Your task to perform on an android device: turn pop-ups off in chrome Image 0: 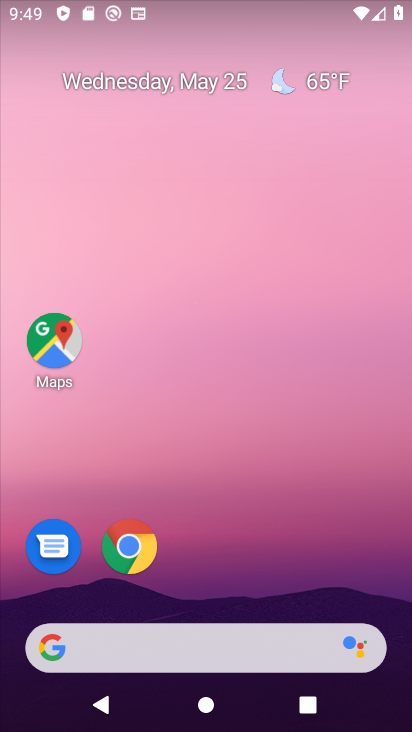
Step 0: drag from (255, 478) to (234, 48)
Your task to perform on an android device: turn pop-ups off in chrome Image 1: 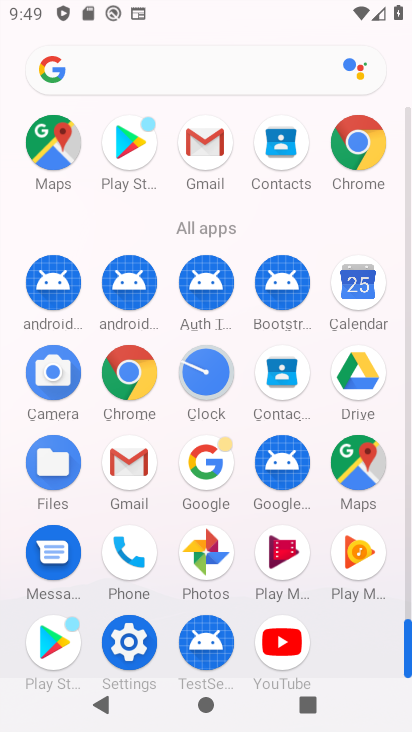
Step 1: drag from (13, 573) to (4, 243)
Your task to perform on an android device: turn pop-ups off in chrome Image 2: 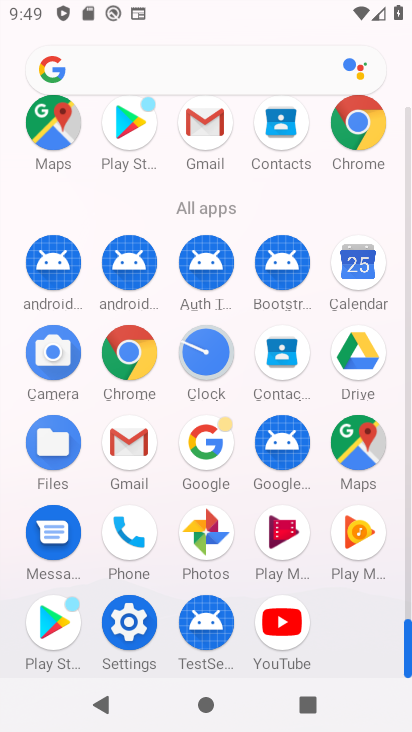
Step 2: click (131, 346)
Your task to perform on an android device: turn pop-ups off in chrome Image 3: 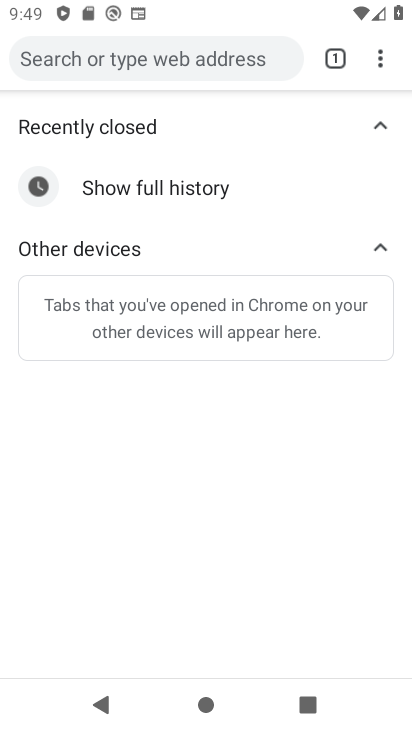
Step 3: drag from (376, 62) to (206, 497)
Your task to perform on an android device: turn pop-ups off in chrome Image 4: 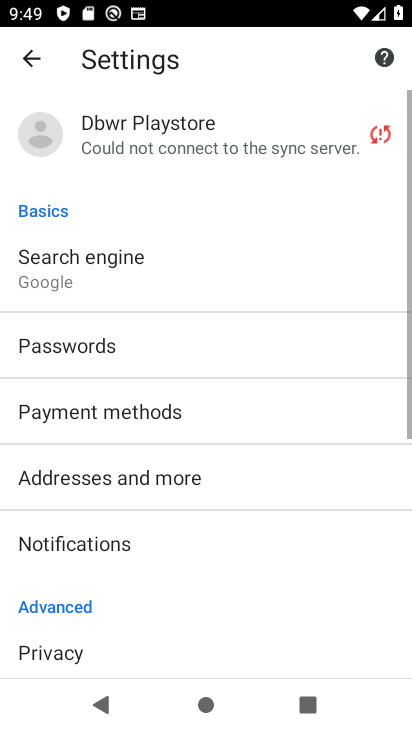
Step 4: drag from (279, 577) to (290, 140)
Your task to perform on an android device: turn pop-ups off in chrome Image 5: 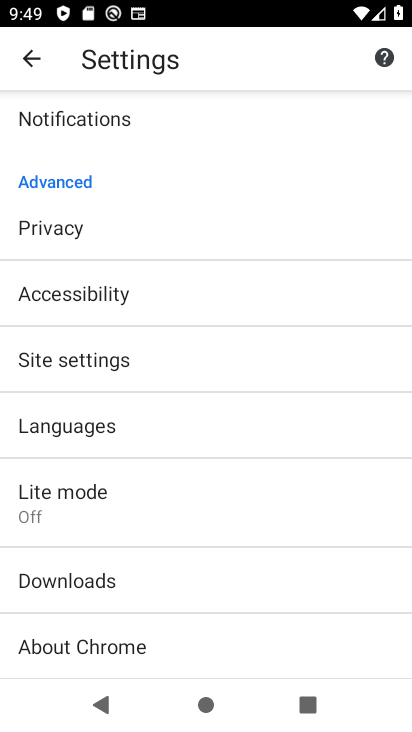
Step 5: drag from (229, 568) to (292, 163)
Your task to perform on an android device: turn pop-ups off in chrome Image 6: 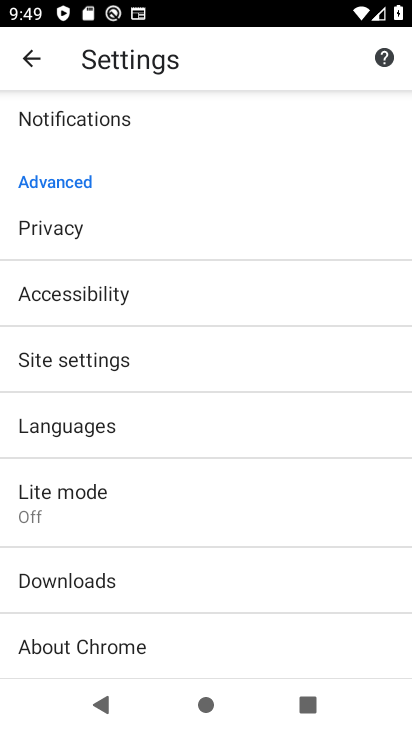
Step 6: click (116, 353)
Your task to perform on an android device: turn pop-ups off in chrome Image 7: 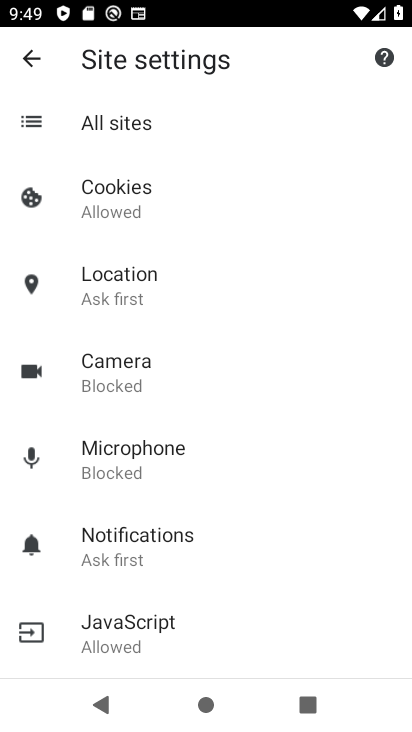
Step 7: drag from (222, 551) to (242, 210)
Your task to perform on an android device: turn pop-ups off in chrome Image 8: 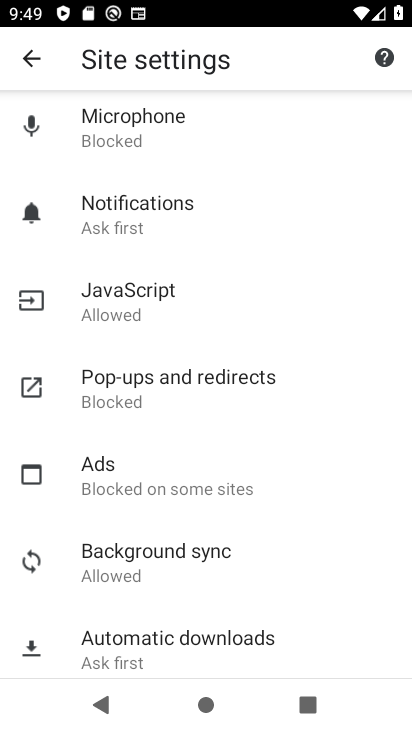
Step 8: drag from (239, 171) to (274, 507)
Your task to perform on an android device: turn pop-ups off in chrome Image 9: 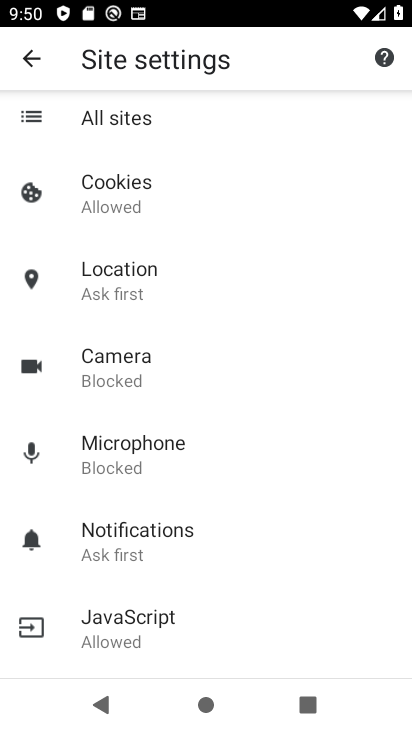
Step 9: drag from (260, 538) to (267, 202)
Your task to perform on an android device: turn pop-ups off in chrome Image 10: 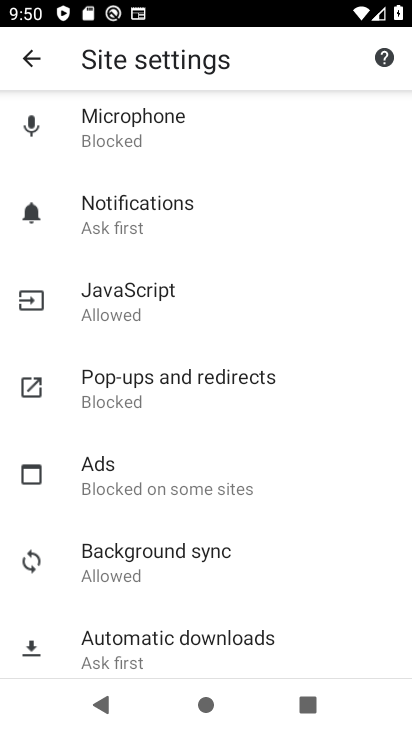
Step 10: click (182, 383)
Your task to perform on an android device: turn pop-ups off in chrome Image 11: 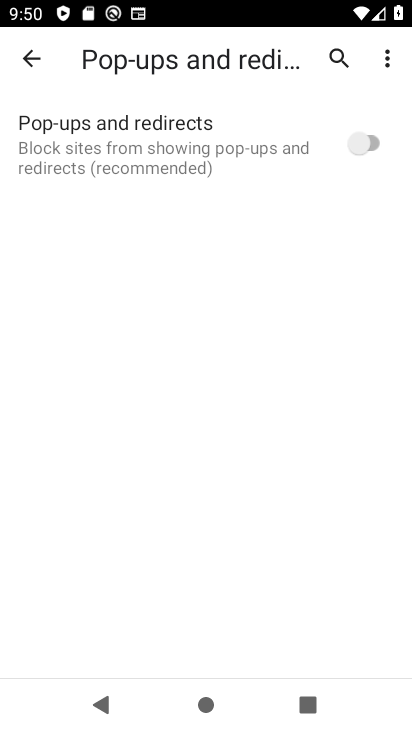
Step 11: task complete